Your task to perform on an android device: Open Google Chrome and open the bookmarks view Image 0: 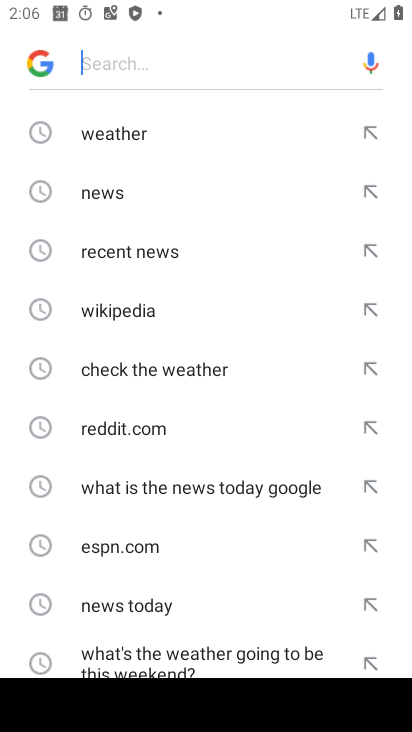
Step 0: press home button
Your task to perform on an android device: Open Google Chrome and open the bookmarks view Image 1: 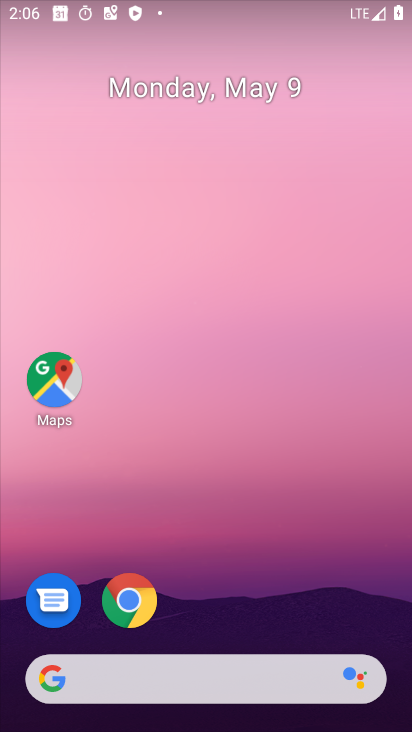
Step 1: drag from (265, 591) to (274, 250)
Your task to perform on an android device: Open Google Chrome and open the bookmarks view Image 2: 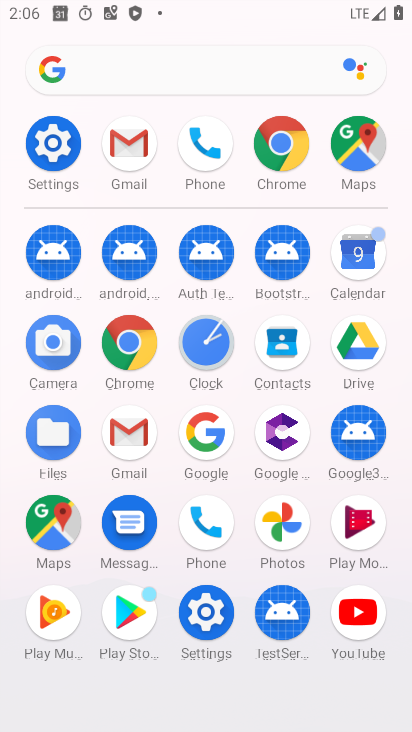
Step 2: click (125, 342)
Your task to perform on an android device: Open Google Chrome and open the bookmarks view Image 3: 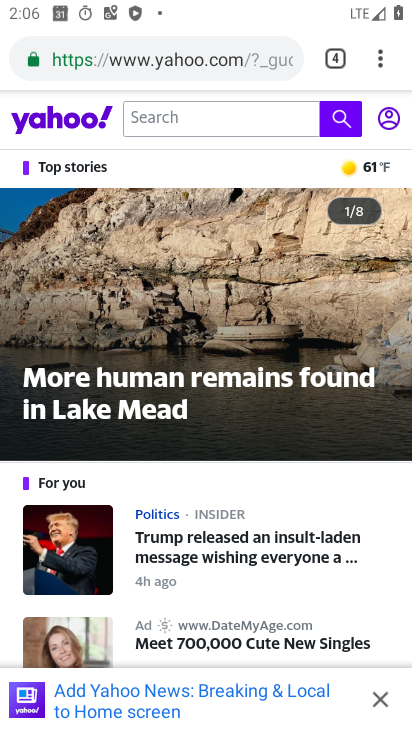
Step 3: click (390, 67)
Your task to perform on an android device: Open Google Chrome and open the bookmarks view Image 4: 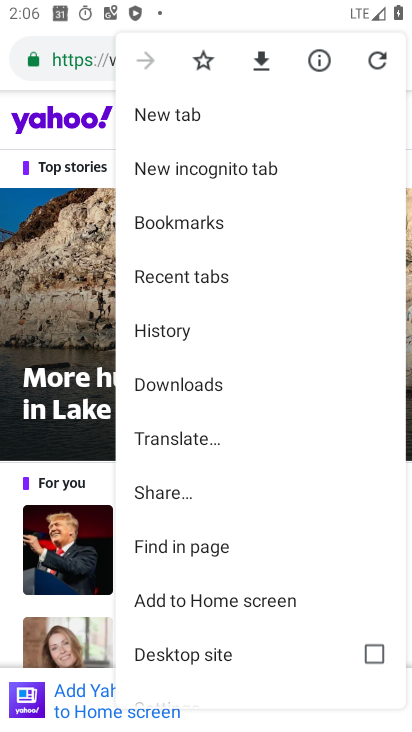
Step 4: click (228, 228)
Your task to perform on an android device: Open Google Chrome and open the bookmarks view Image 5: 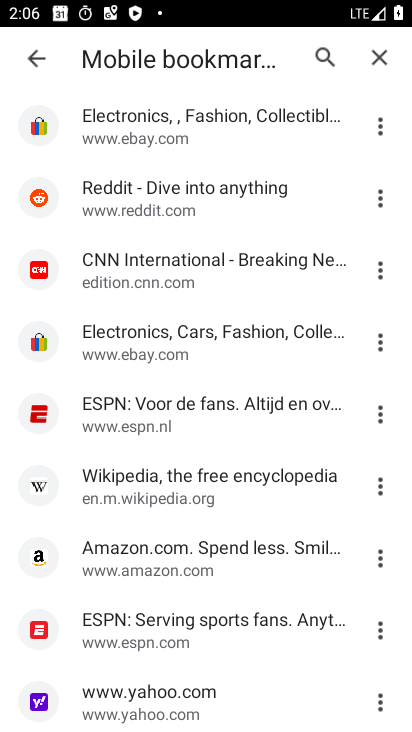
Step 5: task complete